Your task to perform on an android device: change notifications settings Image 0: 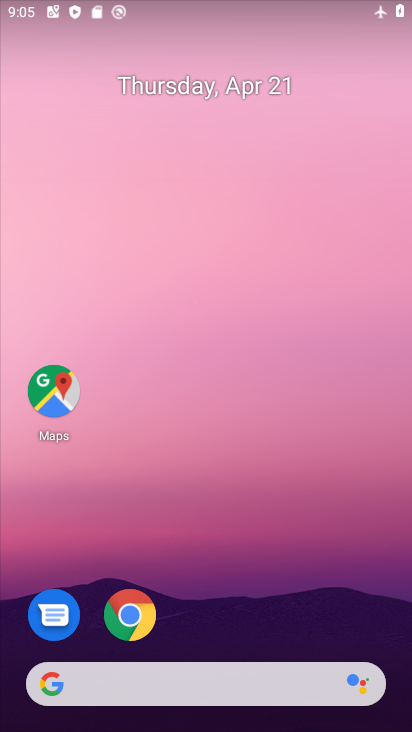
Step 0: drag from (223, 703) to (223, 150)
Your task to perform on an android device: change notifications settings Image 1: 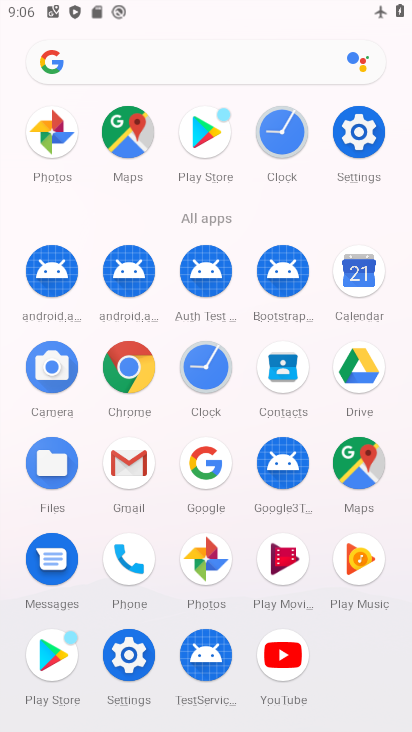
Step 1: click (357, 131)
Your task to perform on an android device: change notifications settings Image 2: 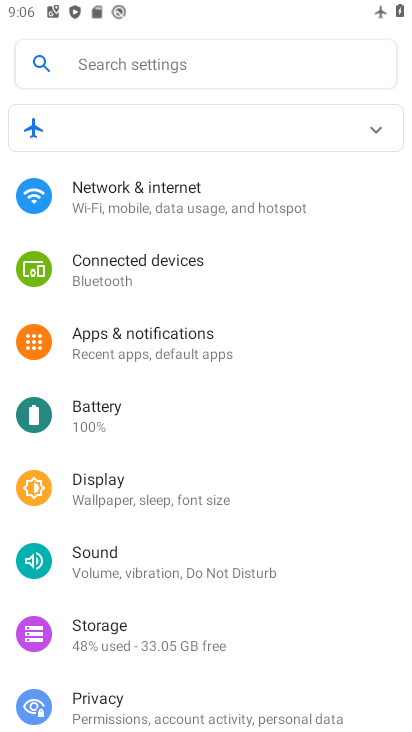
Step 2: click (137, 340)
Your task to perform on an android device: change notifications settings Image 3: 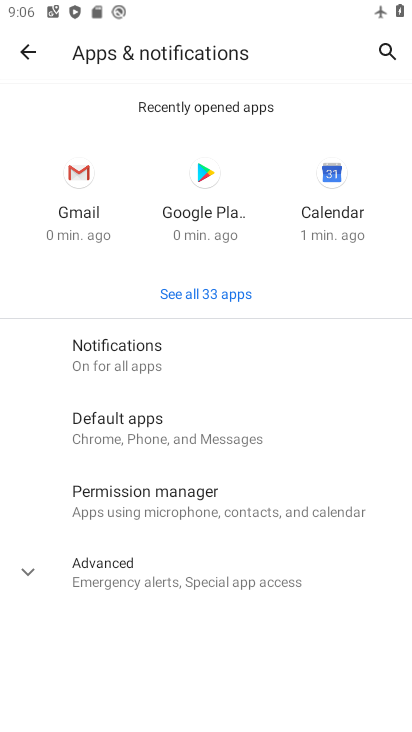
Step 3: click (124, 358)
Your task to perform on an android device: change notifications settings Image 4: 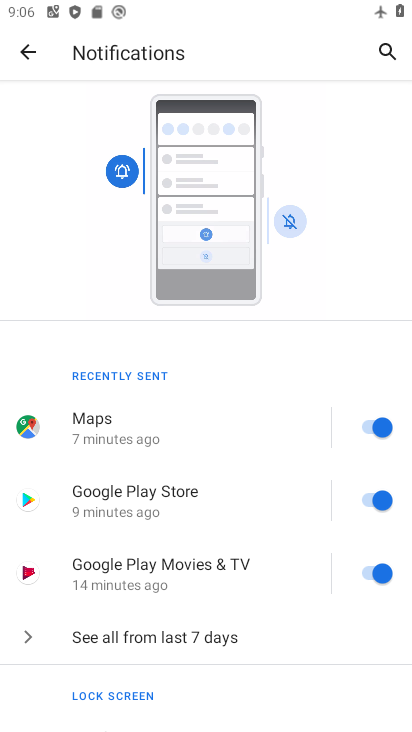
Step 4: drag from (215, 679) to (246, 358)
Your task to perform on an android device: change notifications settings Image 5: 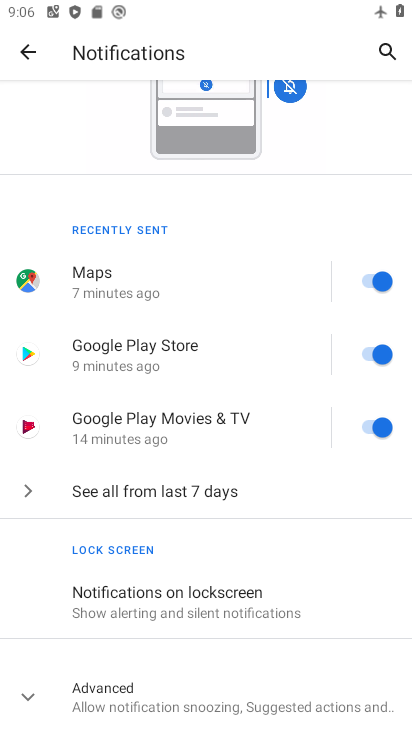
Step 5: click (121, 694)
Your task to perform on an android device: change notifications settings Image 6: 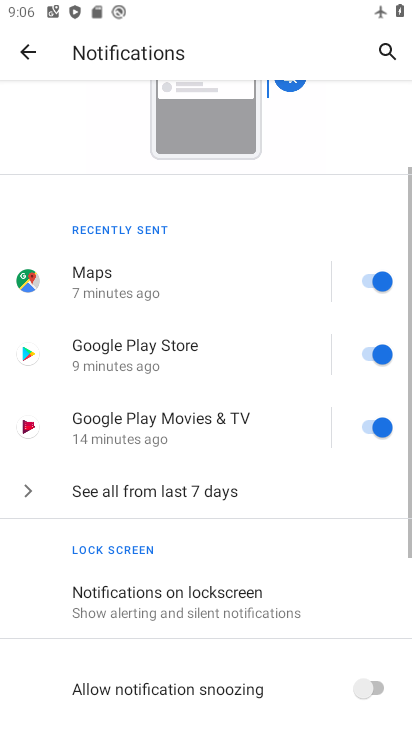
Step 6: drag from (204, 663) to (243, 409)
Your task to perform on an android device: change notifications settings Image 7: 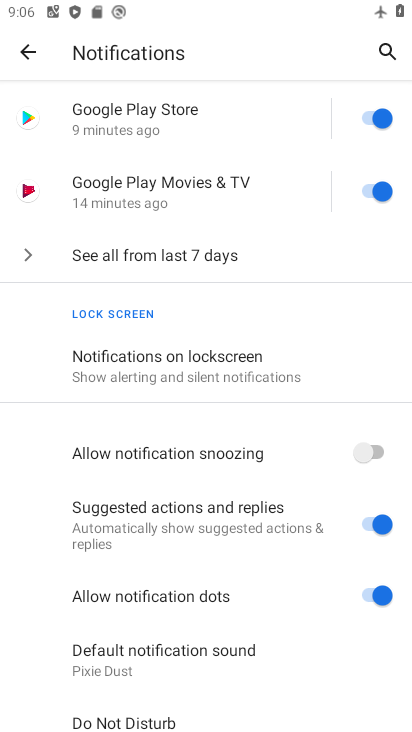
Step 7: click (374, 450)
Your task to perform on an android device: change notifications settings Image 8: 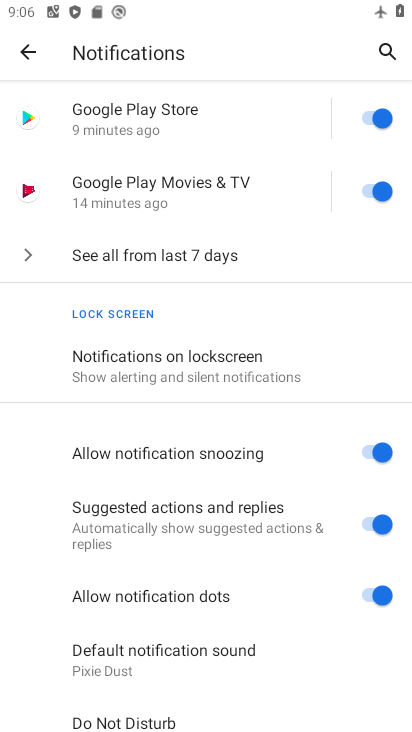
Step 8: task complete